Your task to perform on an android device: Open Yahoo.com Image 0: 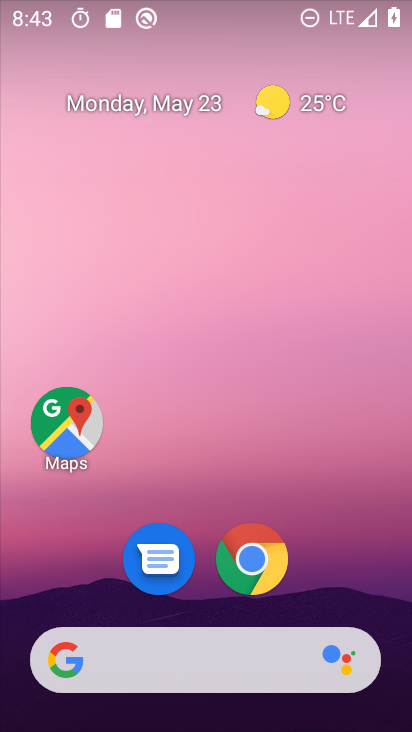
Step 0: drag from (380, 613) to (287, 75)
Your task to perform on an android device: Open Yahoo.com Image 1: 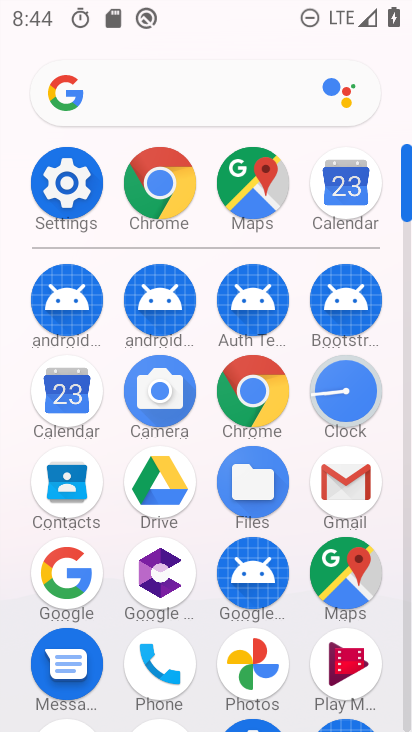
Step 1: click (185, 193)
Your task to perform on an android device: Open Yahoo.com Image 2: 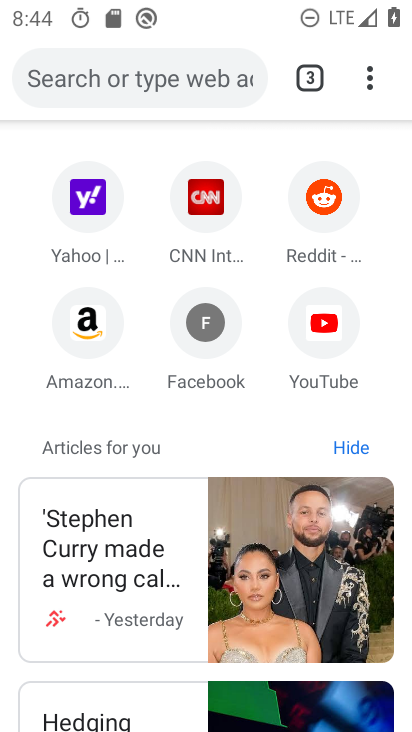
Step 2: click (76, 196)
Your task to perform on an android device: Open Yahoo.com Image 3: 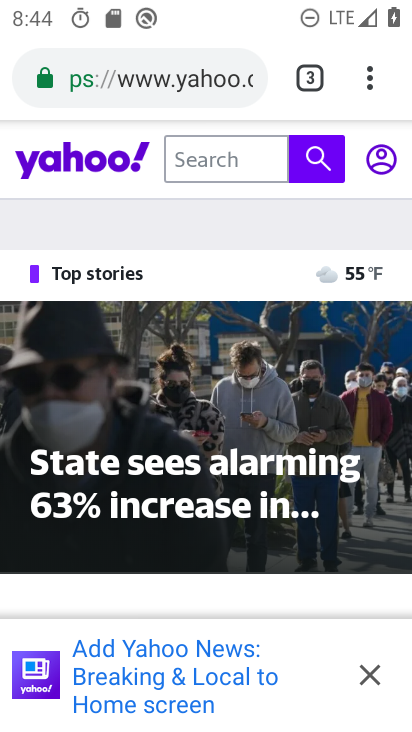
Step 3: task complete